Your task to perform on an android device: create a new album in the google photos Image 0: 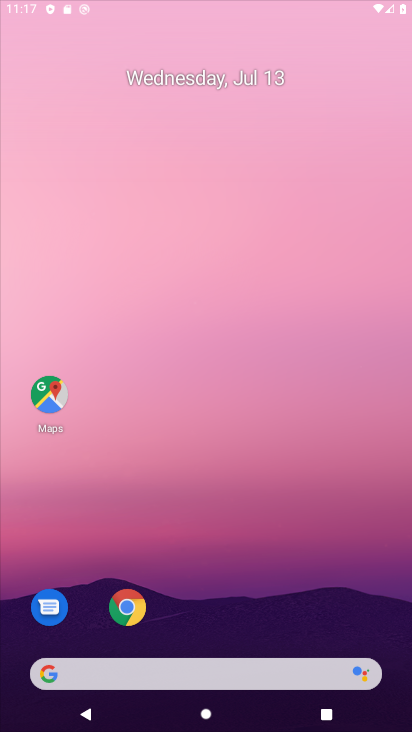
Step 0: click (317, 219)
Your task to perform on an android device: create a new album in the google photos Image 1: 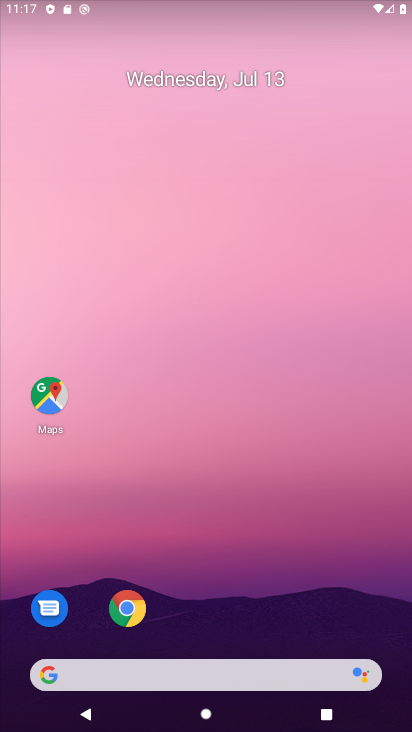
Step 1: drag from (237, 595) to (282, 270)
Your task to perform on an android device: create a new album in the google photos Image 2: 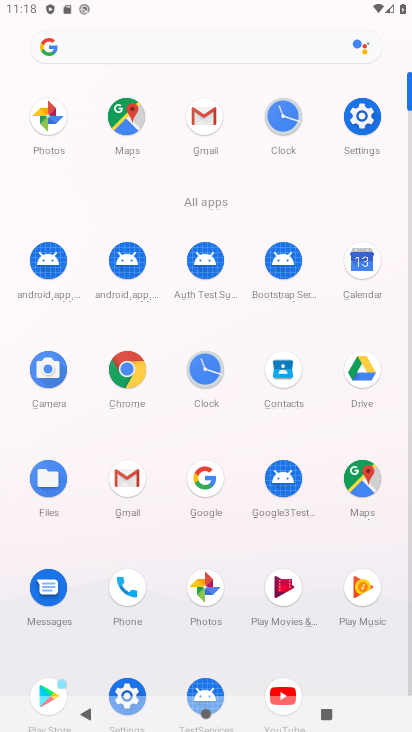
Step 2: click (209, 586)
Your task to perform on an android device: create a new album in the google photos Image 3: 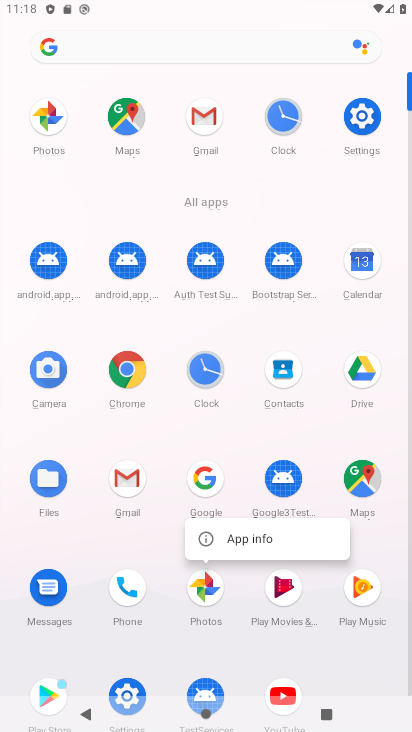
Step 3: click (258, 536)
Your task to perform on an android device: create a new album in the google photos Image 4: 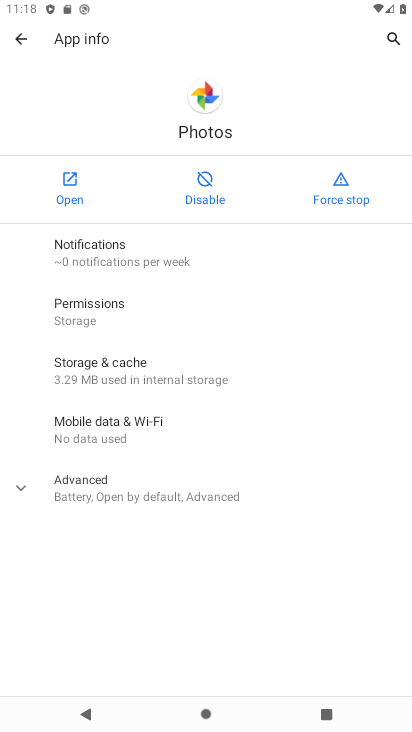
Step 4: click (78, 189)
Your task to perform on an android device: create a new album in the google photos Image 5: 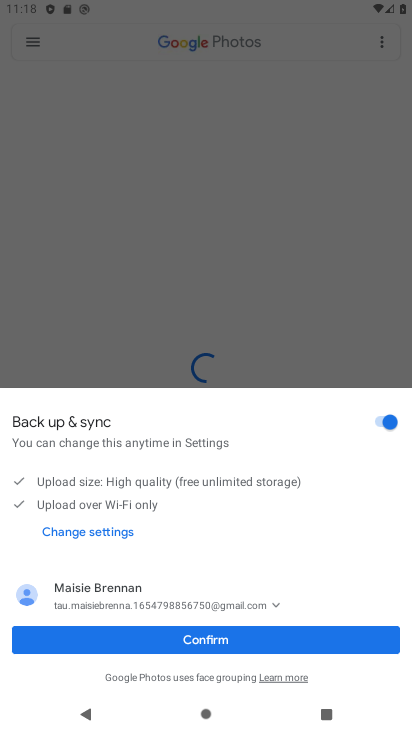
Step 5: click (260, 634)
Your task to perform on an android device: create a new album in the google photos Image 6: 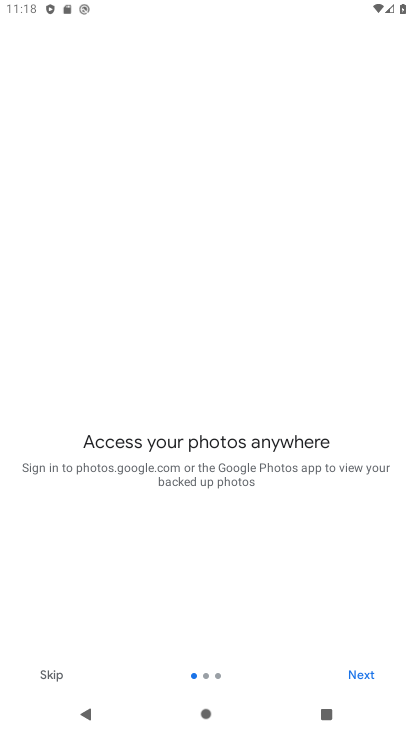
Step 6: click (44, 683)
Your task to perform on an android device: create a new album in the google photos Image 7: 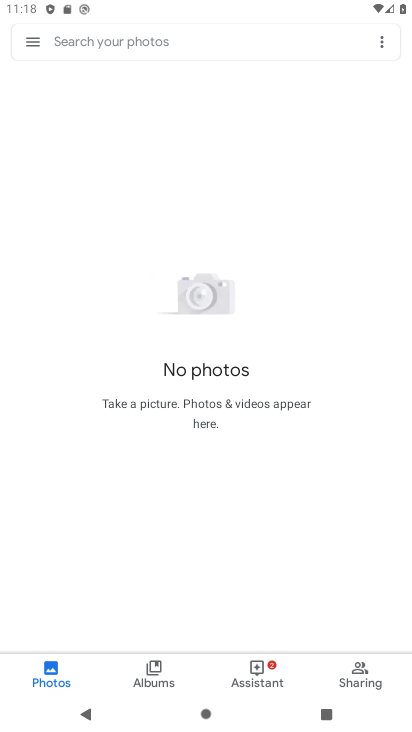
Step 7: drag from (245, 524) to (256, 317)
Your task to perform on an android device: create a new album in the google photos Image 8: 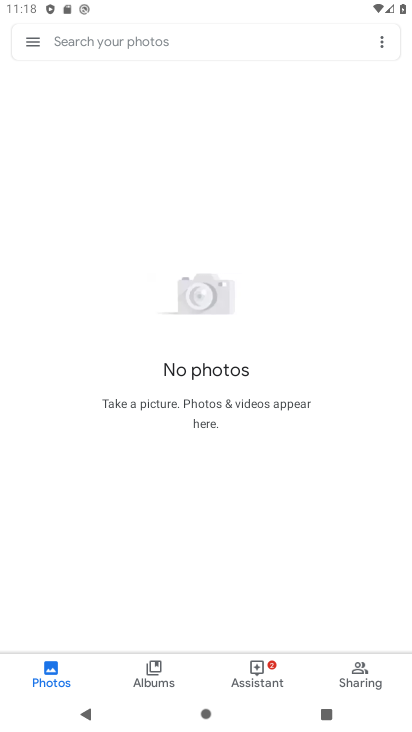
Step 8: drag from (245, 411) to (251, 230)
Your task to perform on an android device: create a new album in the google photos Image 9: 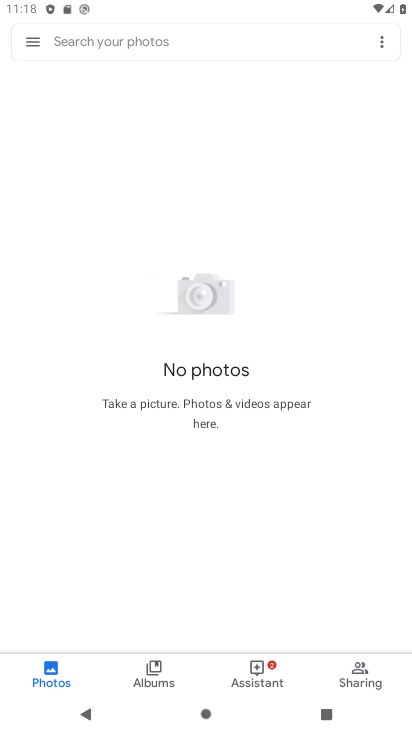
Step 9: drag from (287, 553) to (245, 211)
Your task to perform on an android device: create a new album in the google photos Image 10: 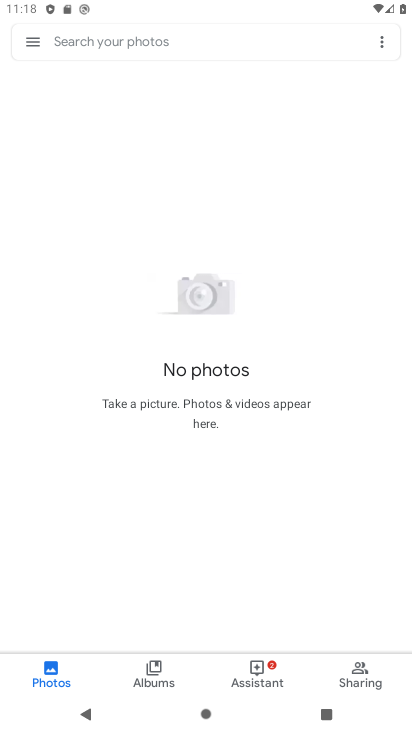
Step 10: drag from (236, 514) to (245, 176)
Your task to perform on an android device: create a new album in the google photos Image 11: 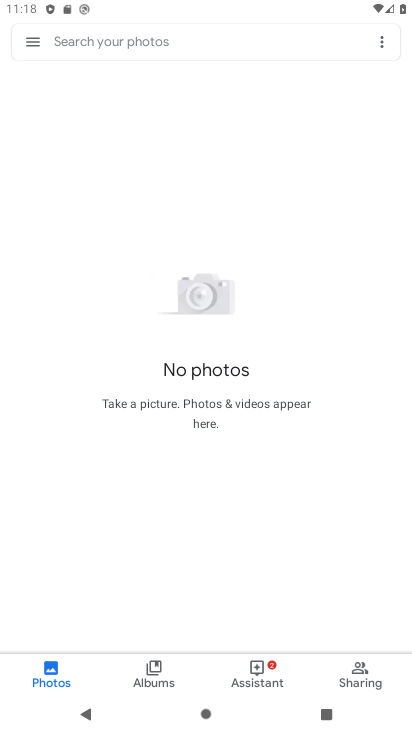
Step 11: drag from (295, 511) to (316, 343)
Your task to perform on an android device: create a new album in the google photos Image 12: 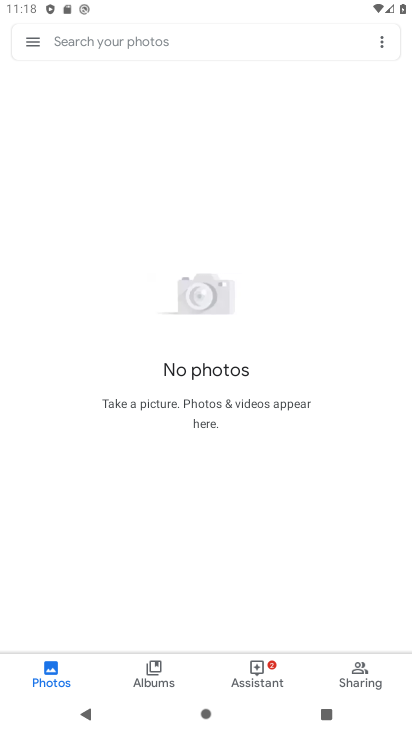
Step 12: click (19, 45)
Your task to perform on an android device: create a new album in the google photos Image 13: 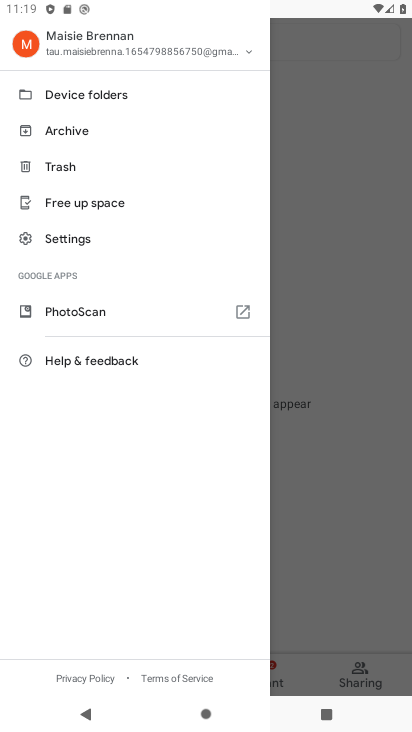
Step 13: click (319, 164)
Your task to perform on an android device: create a new album in the google photos Image 14: 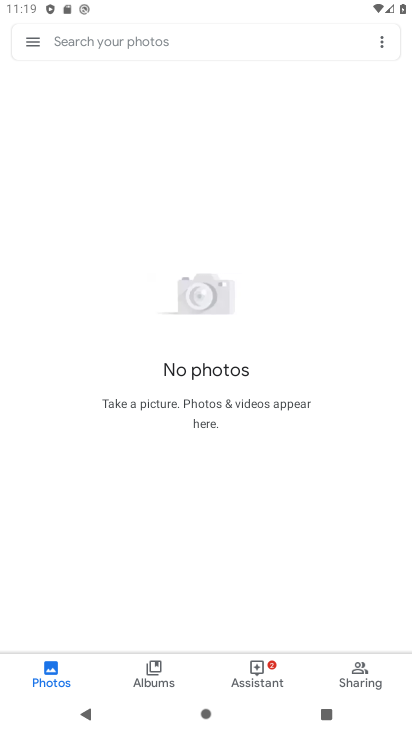
Step 14: click (151, 678)
Your task to perform on an android device: create a new album in the google photos Image 15: 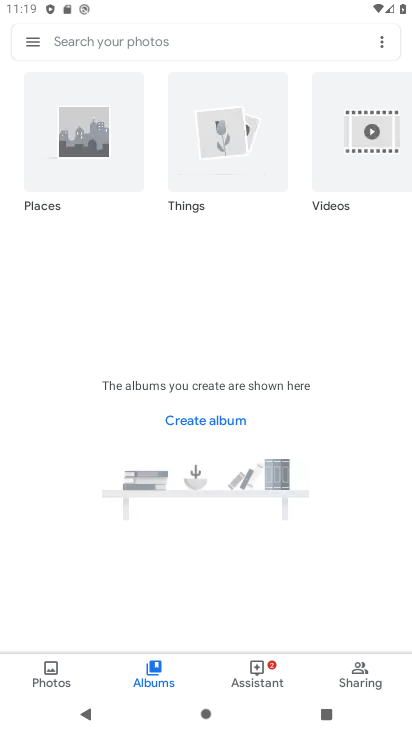
Step 15: click (227, 408)
Your task to perform on an android device: create a new album in the google photos Image 16: 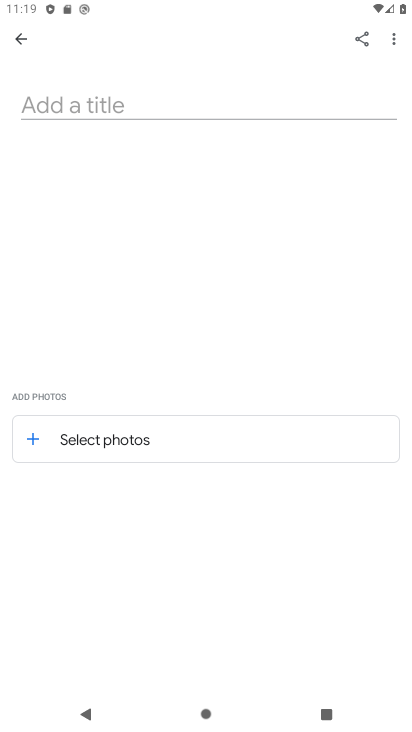
Step 16: click (53, 451)
Your task to perform on an android device: create a new album in the google photos Image 17: 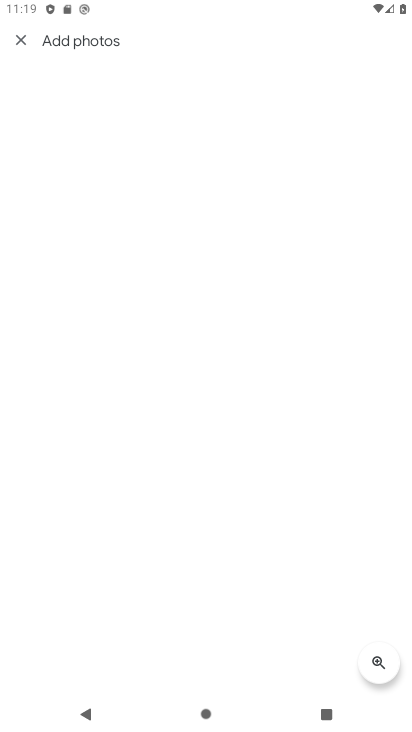
Step 17: drag from (202, 565) to (233, 253)
Your task to perform on an android device: create a new album in the google photos Image 18: 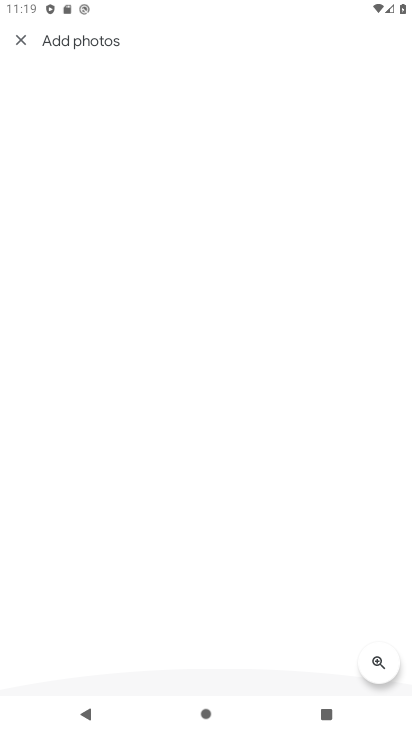
Step 18: click (233, 177)
Your task to perform on an android device: create a new album in the google photos Image 19: 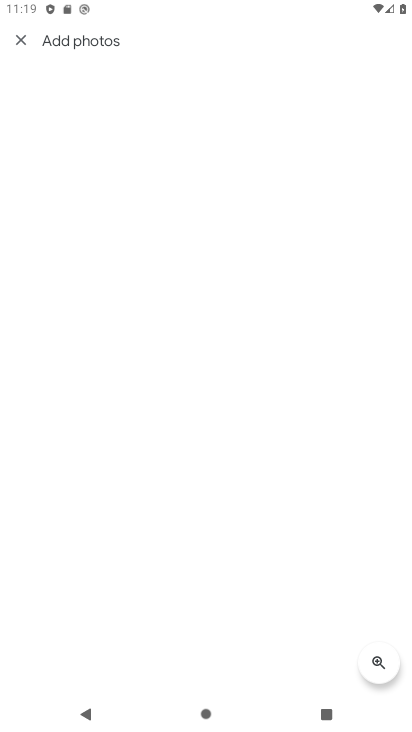
Step 19: drag from (241, 450) to (260, 289)
Your task to perform on an android device: create a new album in the google photos Image 20: 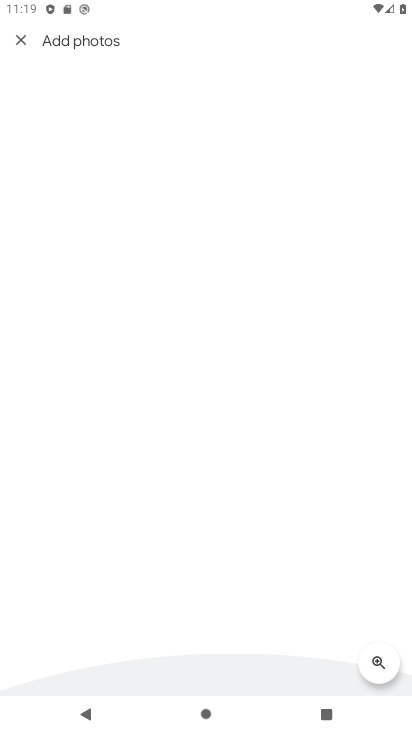
Step 20: click (254, 229)
Your task to perform on an android device: create a new album in the google photos Image 21: 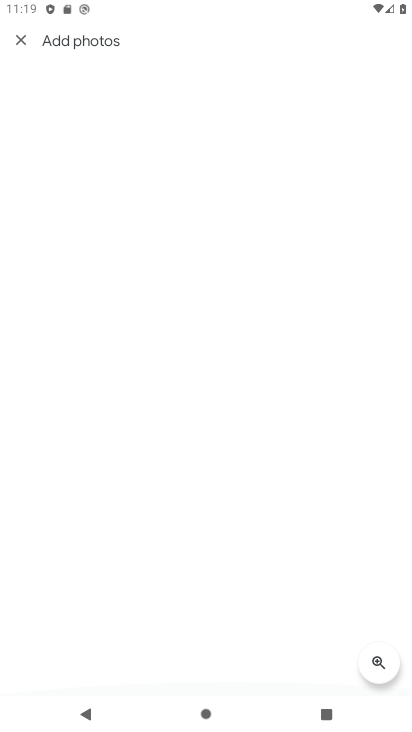
Step 21: click (254, 229)
Your task to perform on an android device: create a new album in the google photos Image 22: 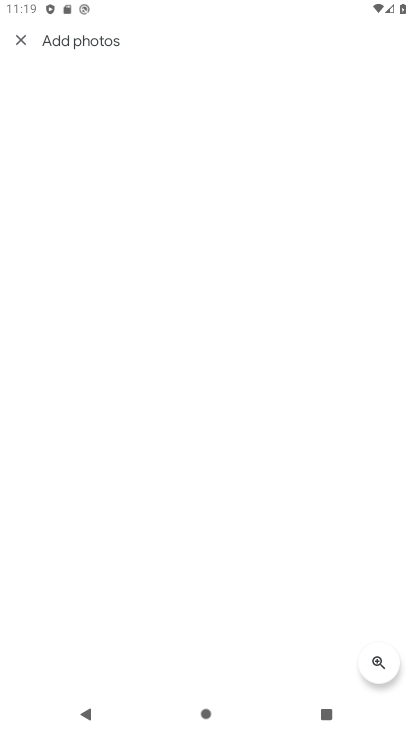
Step 22: click (254, 229)
Your task to perform on an android device: create a new album in the google photos Image 23: 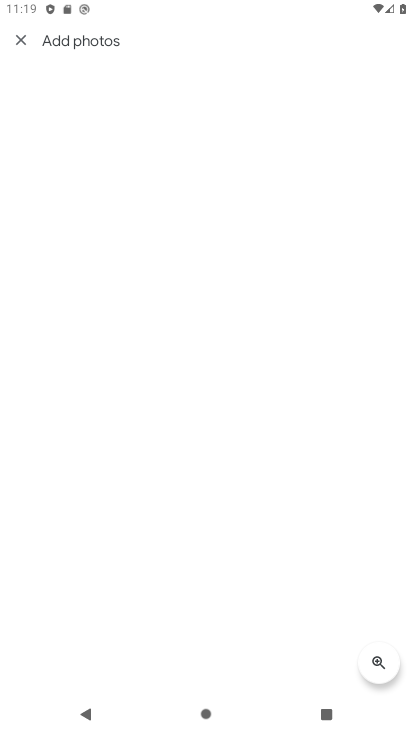
Step 23: drag from (254, 233) to (278, 414)
Your task to perform on an android device: create a new album in the google photos Image 24: 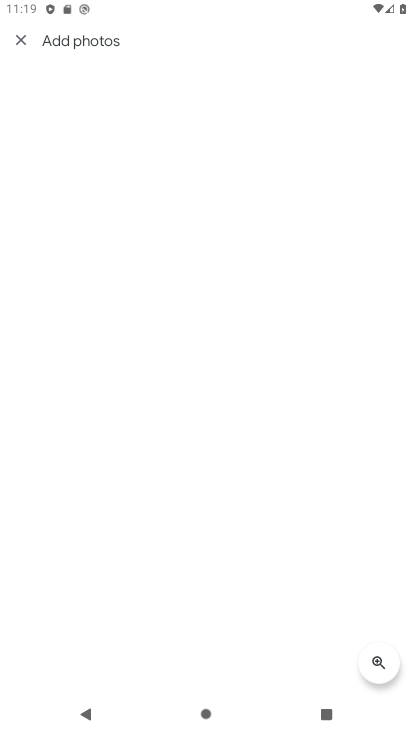
Step 24: click (27, 37)
Your task to perform on an android device: create a new album in the google photos Image 25: 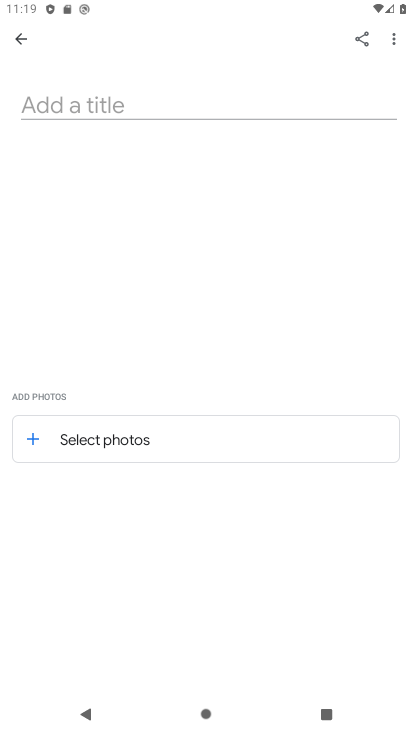
Step 25: click (89, 114)
Your task to perform on an android device: create a new album in the google photos Image 26: 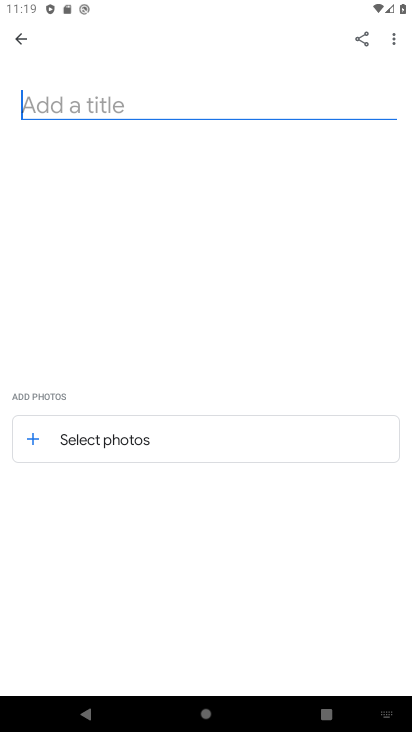
Step 26: click (76, 102)
Your task to perform on an android device: create a new album in the google photos Image 27: 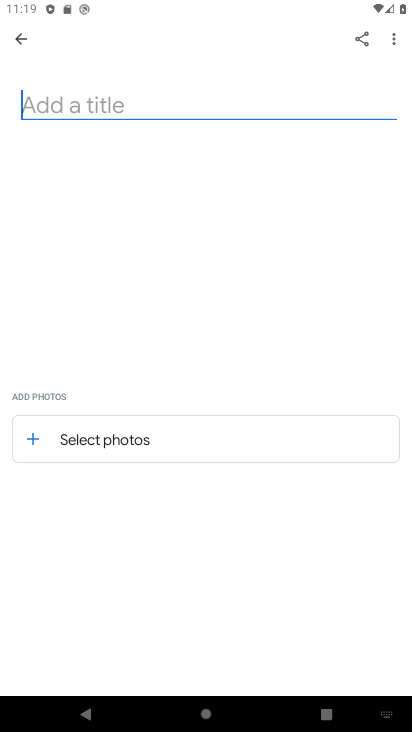
Step 27: type ""
Your task to perform on an android device: create a new album in the google photos Image 28: 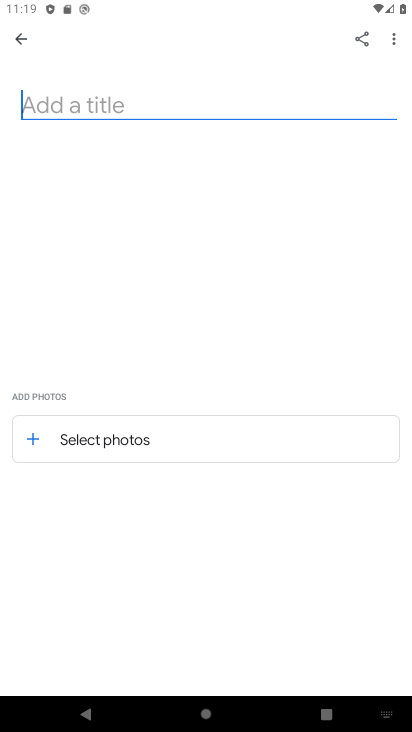
Step 28: type "kjnjkk"
Your task to perform on an android device: create a new album in the google photos Image 29: 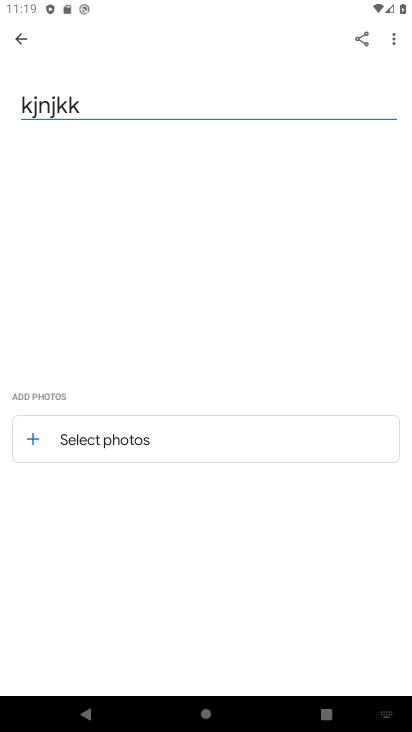
Step 29: click (37, 435)
Your task to perform on an android device: create a new album in the google photos Image 30: 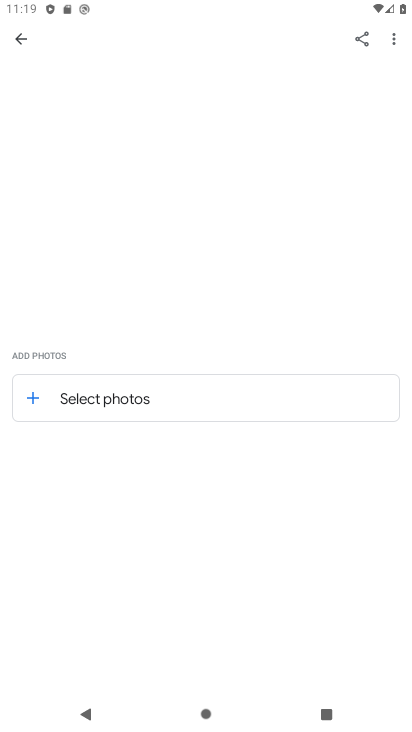
Step 30: click (30, 400)
Your task to perform on an android device: create a new album in the google photos Image 31: 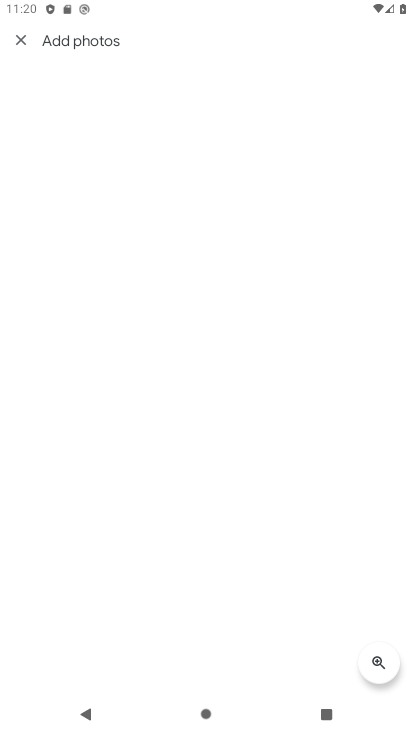
Step 31: task complete